Your task to perform on an android device: What's the news this week? Image 0: 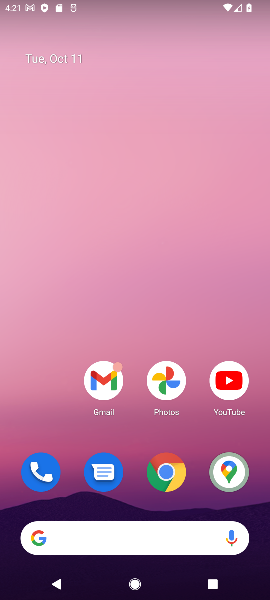
Step 0: click (129, 533)
Your task to perform on an android device: What's the news this week? Image 1: 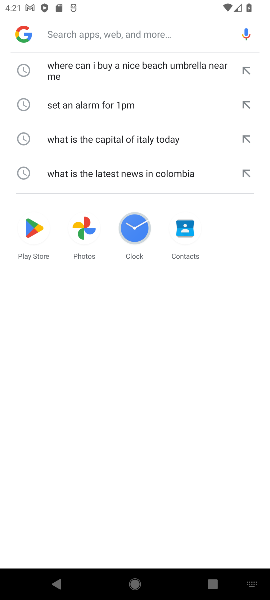
Step 1: type "What's the news this week?"
Your task to perform on an android device: What's the news this week? Image 2: 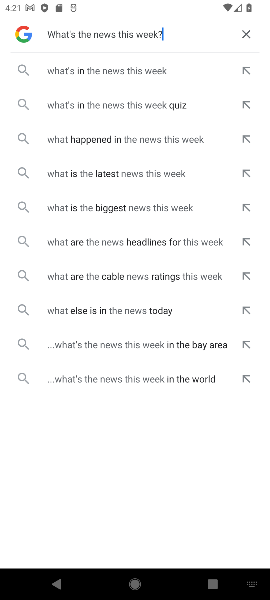
Step 2: click (141, 72)
Your task to perform on an android device: What's the news this week? Image 3: 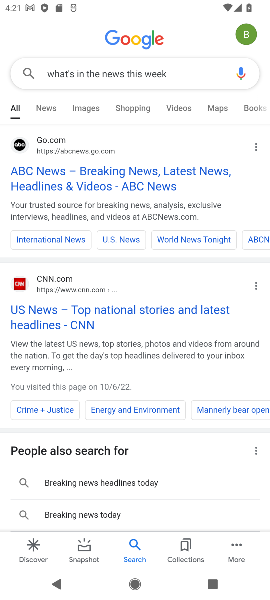
Step 3: task complete